Your task to perform on an android device: toggle javascript in the chrome app Image 0: 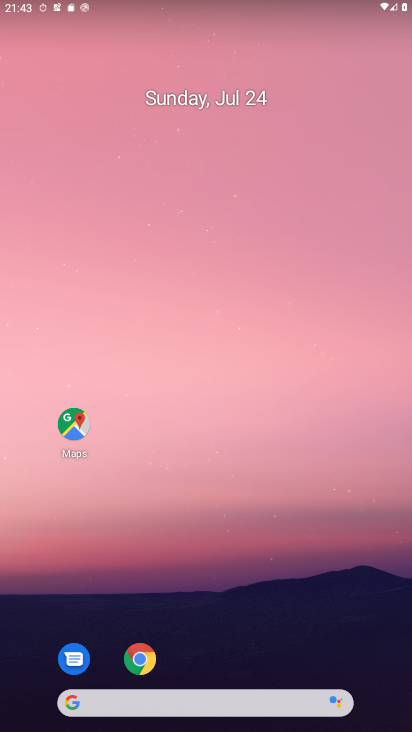
Step 0: drag from (205, 709) to (189, 81)
Your task to perform on an android device: toggle javascript in the chrome app Image 1: 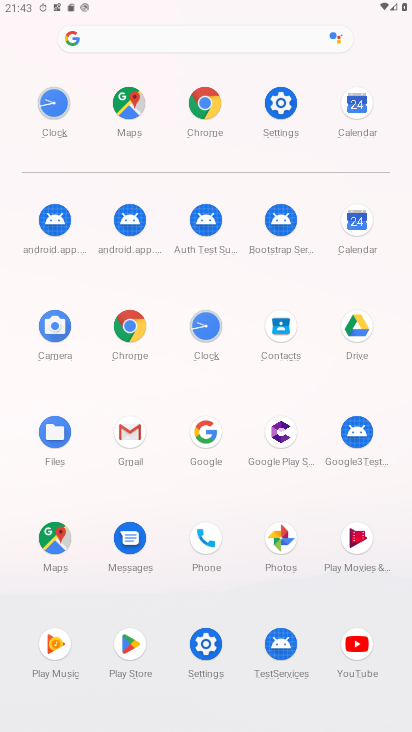
Step 1: click (137, 324)
Your task to perform on an android device: toggle javascript in the chrome app Image 2: 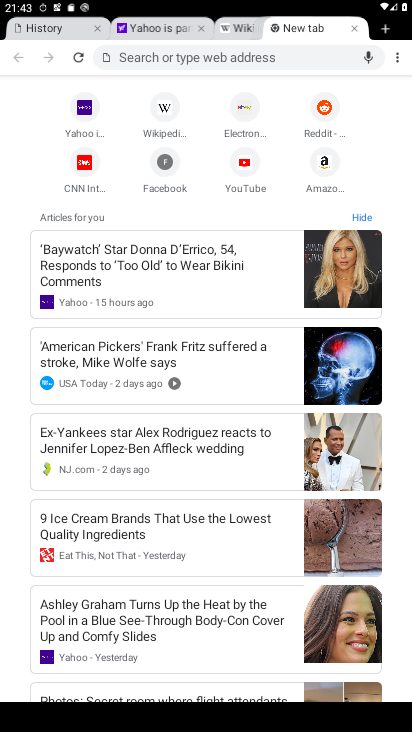
Step 2: click (400, 59)
Your task to perform on an android device: toggle javascript in the chrome app Image 3: 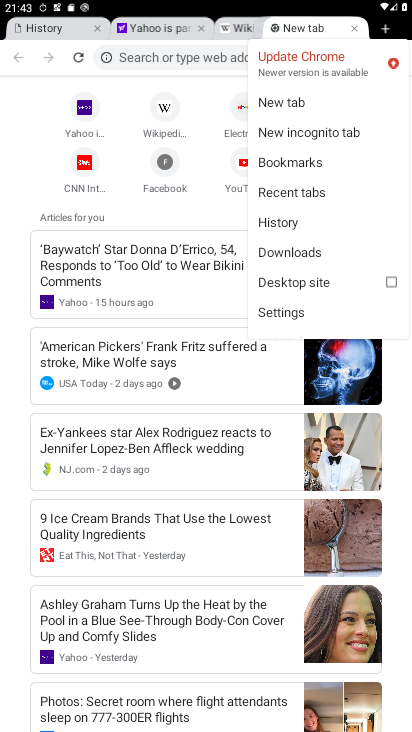
Step 3: click (283, 310)
Your task to perform on an android device: toggle javascript in the chrome app Image 4: 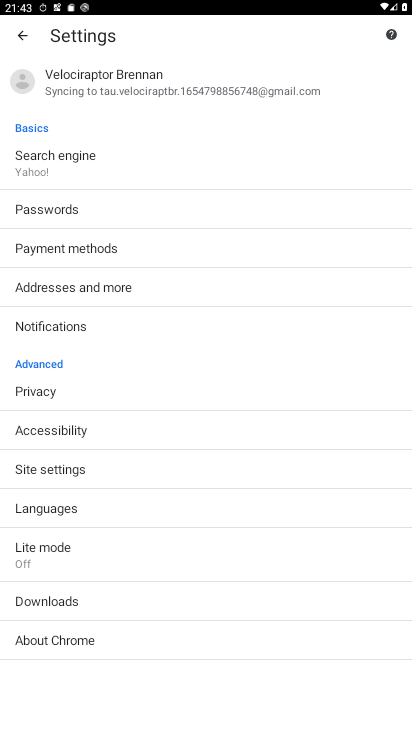
Step 4: click (54, 469)
Your task to perform on an android device: toggle javascript in the chrome app Image 5: 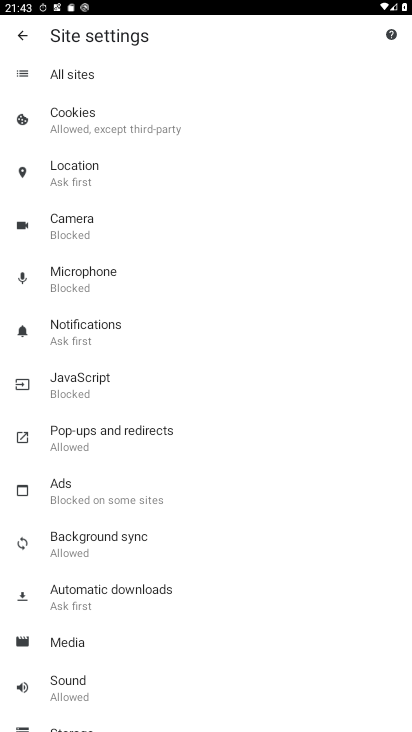
Step 5: click (74, 371)
Your task to perform on an android device: toggle javascript in the chrome app Image 6: 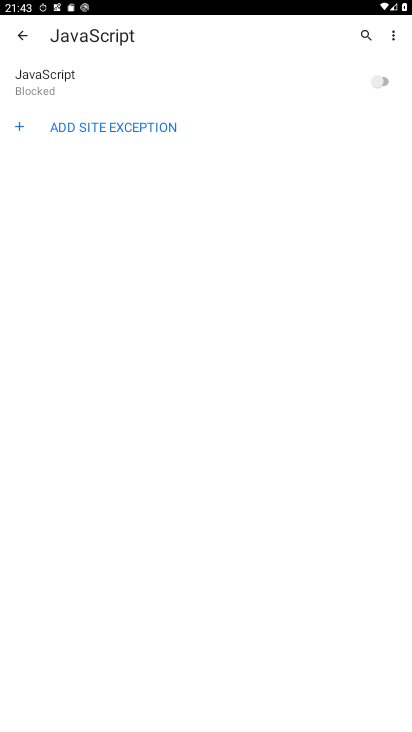
Step 6: click (380, 82)
Your task to perform on an android device: toggle javascript in the chrome app Image 7: 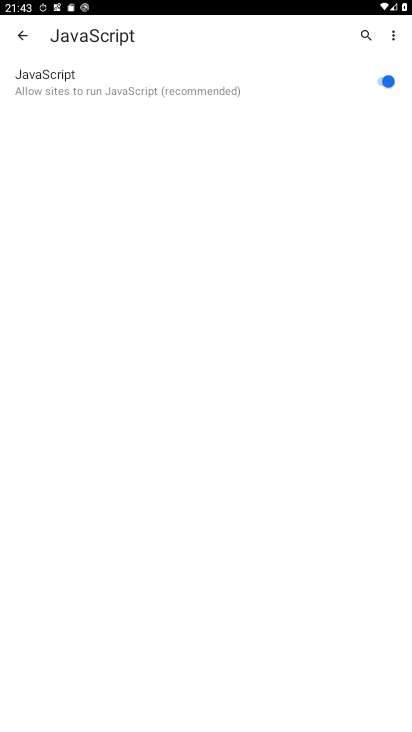
Step 7: task complete